Your task to perform on an android device: toggle show notifications on the lock screen Image 0: 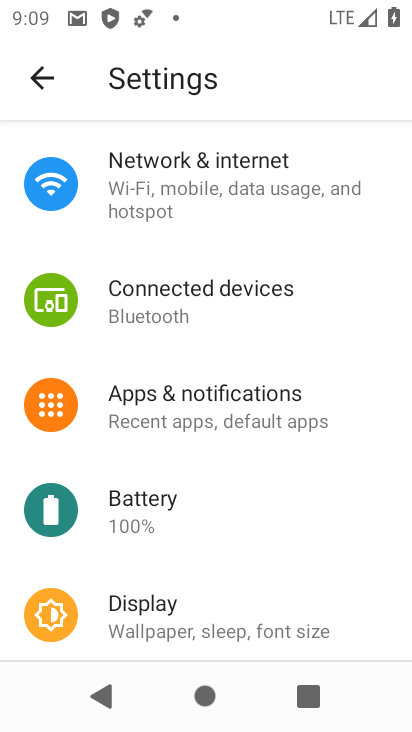
Step 0: click (248, 416)
Your task to perform on an android device: toggle show notifications on the lock screen Image 1: 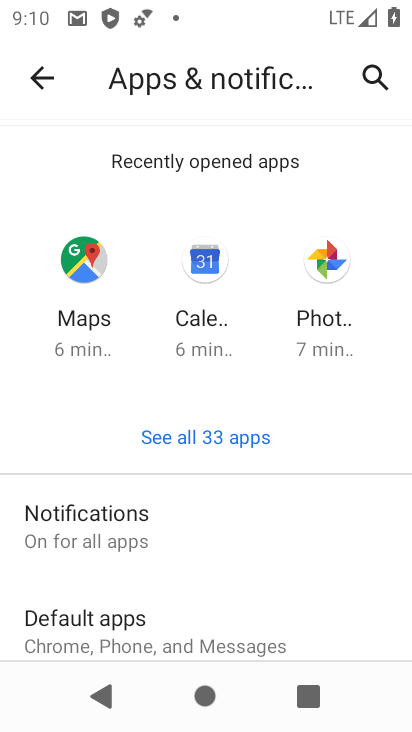
Step 1: click (93, 547)
Your task to perform on an android device: toggle show notifications on the lock screen Image 2: 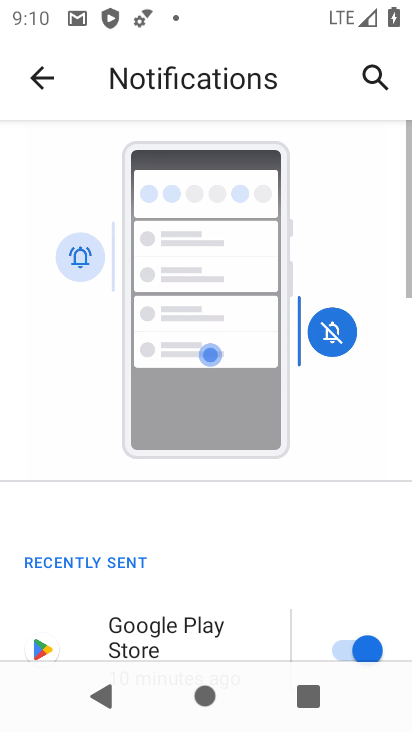
Step 2: drag from (148, 616) to (275, 11)
Your task to perform on an android device: toggle show notifications on the lock screen Image 3: 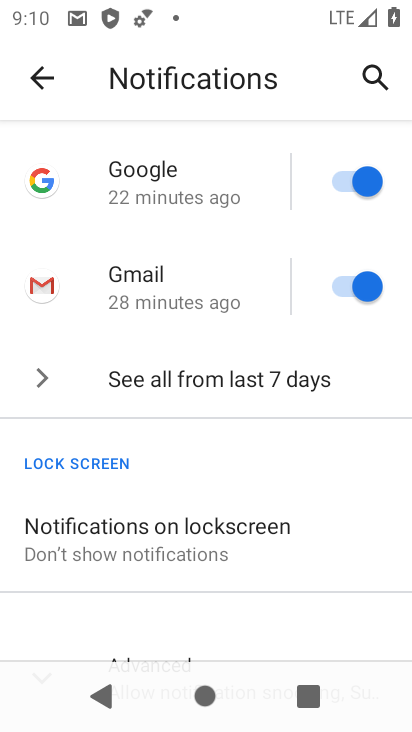
Step 3: click (138, 549)
Your task to perform on an android device: toggle show notifications on the lock screen Image 4: 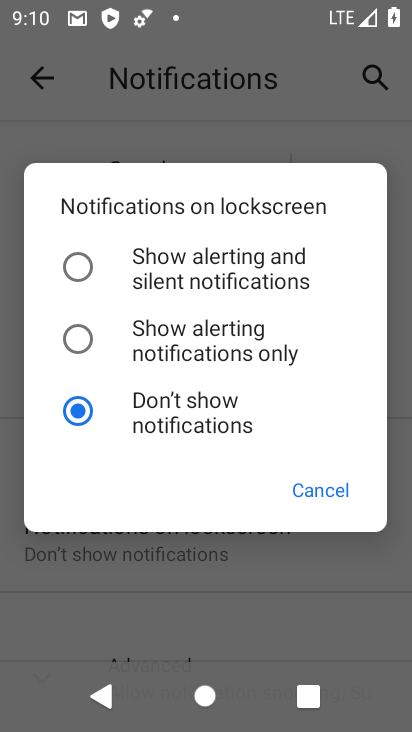
Step 4: click (79, 269)
Your task to perform on an android device: toggle show notifications on the lock screen Image 5: 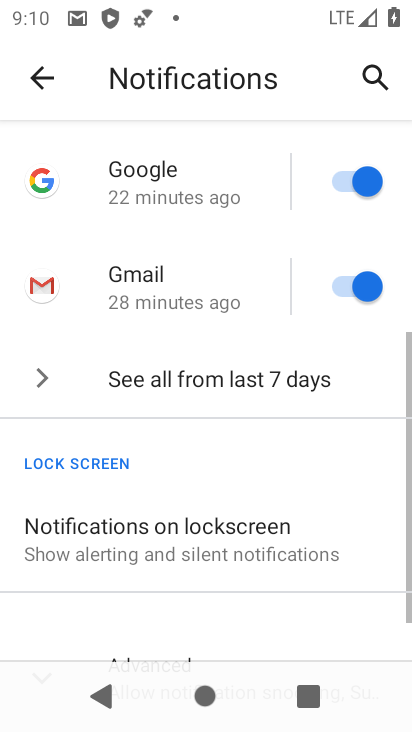
Step 5: task complete